Your task to perform on an android device: Open Reddit.com Image 0: 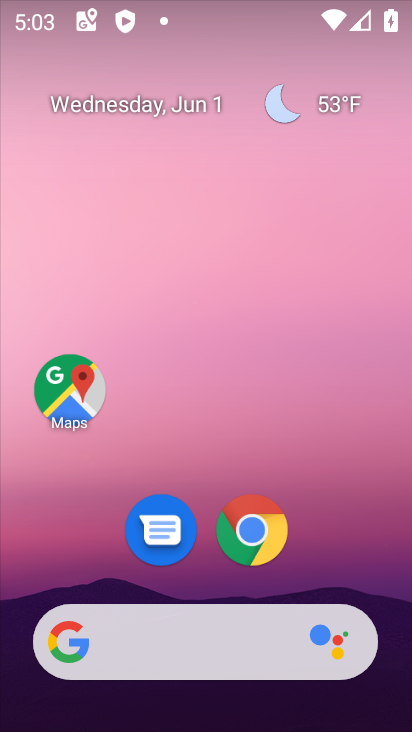
Step 0: click (240, 525)
Your task to perform on an android device: Open Reddit.com Image 1: 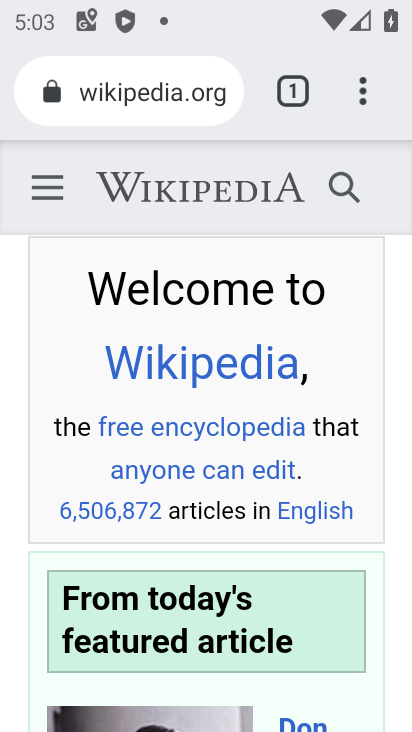
Step 1: click (150, 96)
Your task to perform on an android device: Open Reddit.com Image 2: 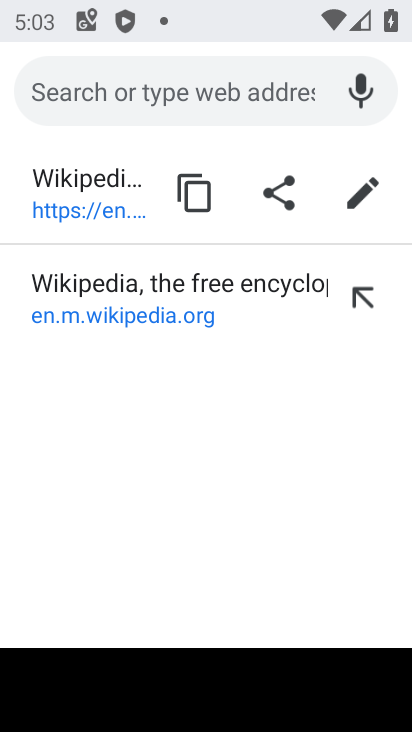
Step 2: type "www.reddit.con"
Your task to perform on an android device: Open Reddit.com Image 3: 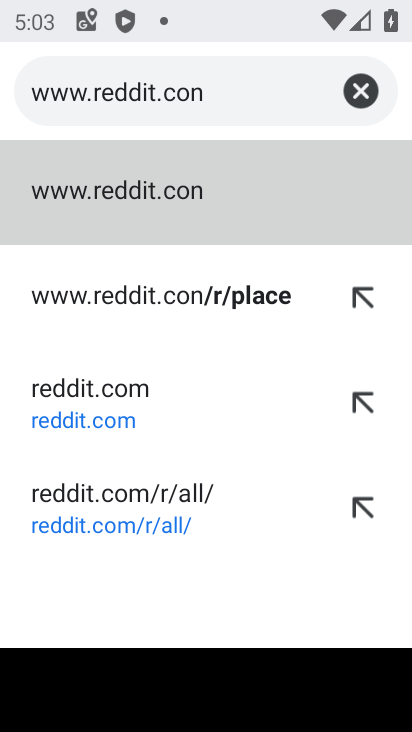
Step 3: click (211, 406)
Your task to perform on an android device: Open Reddit.com Image 4: 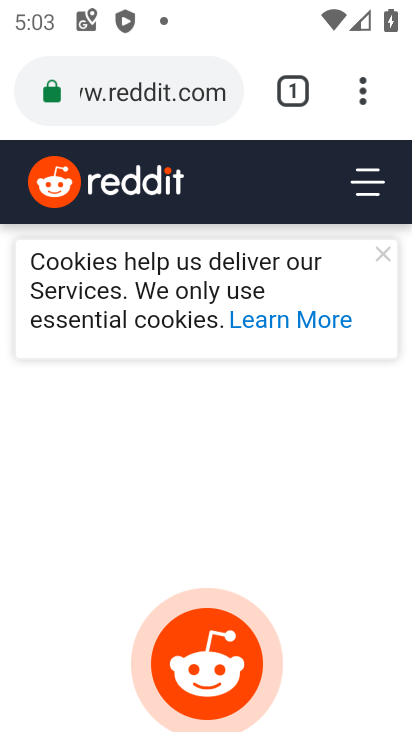
Step 4: task complete